Your task to perform on an android device: Open the map Image 0: 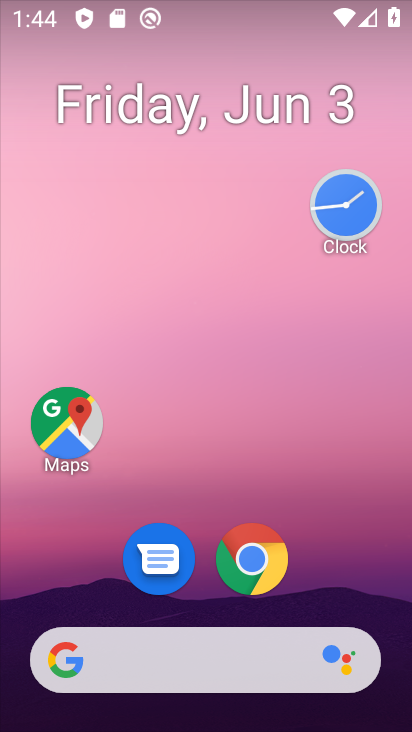
Step 0: click (89, 420)
Your task to perform on an android device: Open the map Image 1: 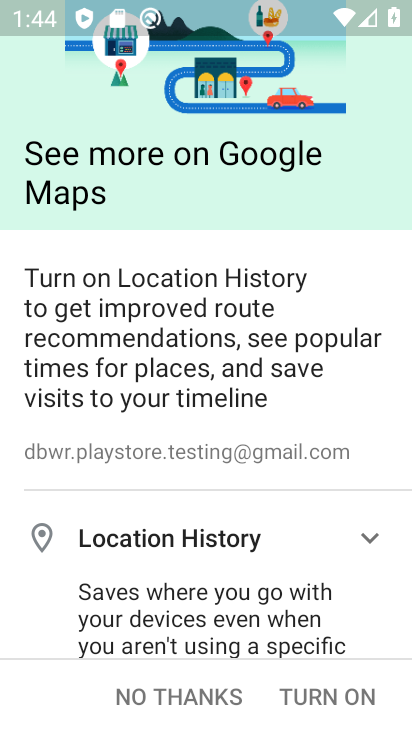
Step 1: click (367, 690)
Your task to perform on an android device: Open the map Image 2: 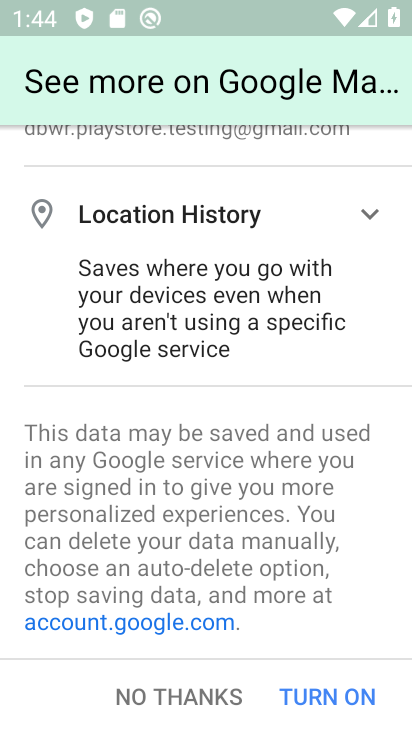
Step 2: click (349, 689)
Your task to perform on an android device: Open the map Image 3: 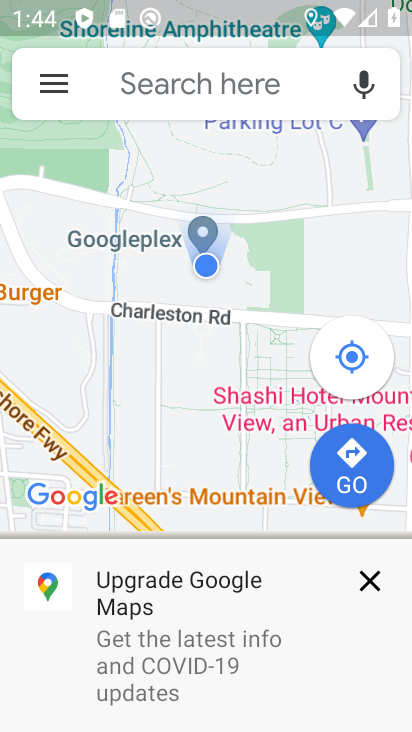
Step 3: task complete